Your task to perform on an android device: turn on wifi Image 0: 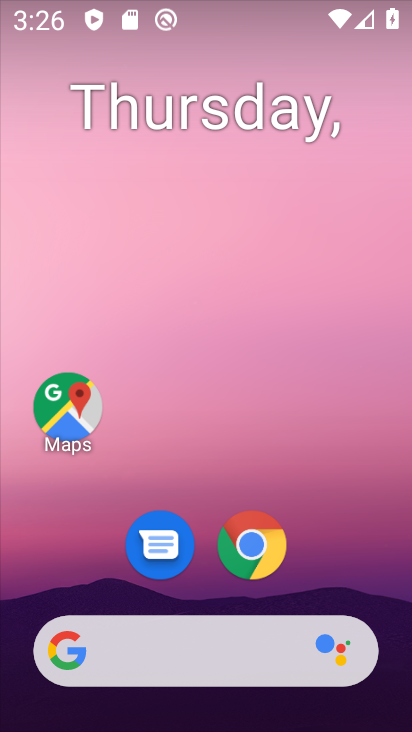
Step 0: drag from (347, 585) to (313, 45)
Your task to perform on an android device: turn on wifi Image 1: 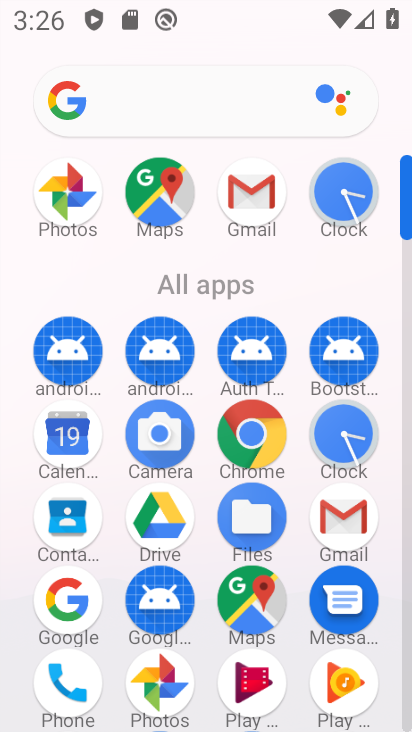
Step 1: drag from (412, 590) to (399, 285)
Your task to perform on an android device: turn on wifi Image 2: 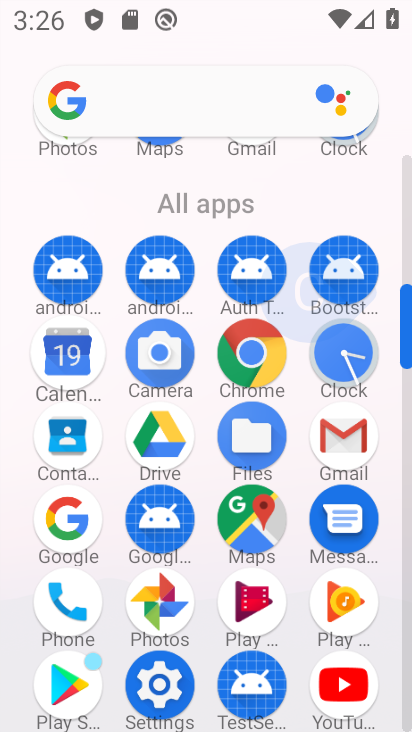
Step 2: click (139, 717)
Your task to perform on an android device: turn on wifi Image 3: 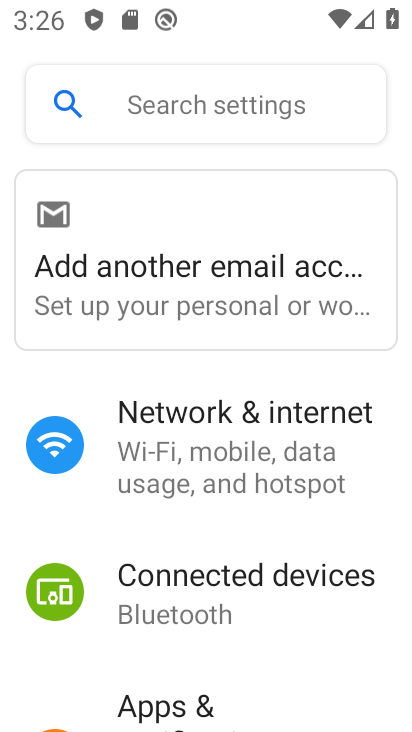
Step 3: click (175, 262)
Your task to perform on an android device: turn on wifi Image 4: 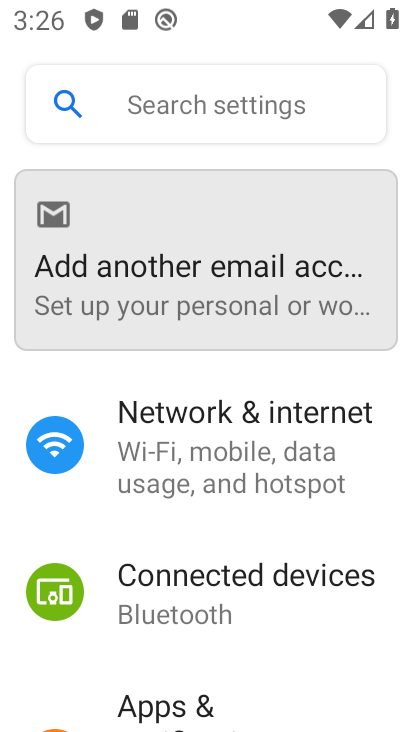
Step 4: click (149, 414)
Your task to perform on an android device: turn on wifi Image 5: 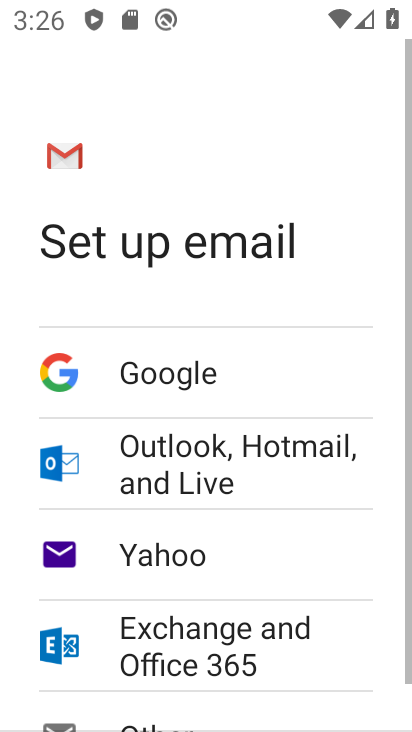
Step 5: press back button
Your task to perform on an android device: turn on wifi Image 6: 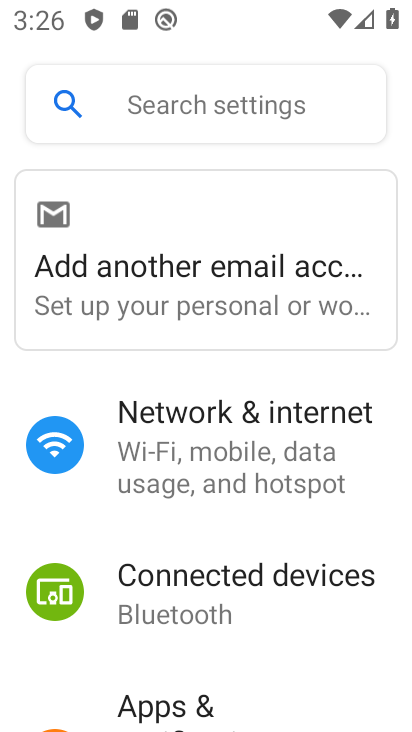
Step 6: click (222, 485)
Your task to perform on an android device: turn on wifi Image 7: 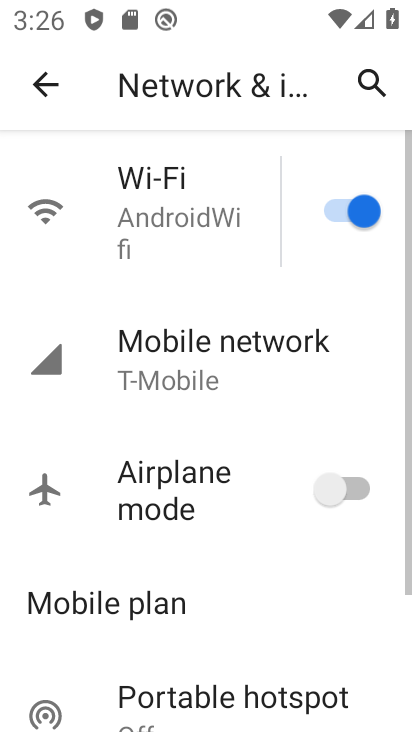
Step 7: click (335, 199)
Your task to perform on an android device: turn on wifi Image 8: 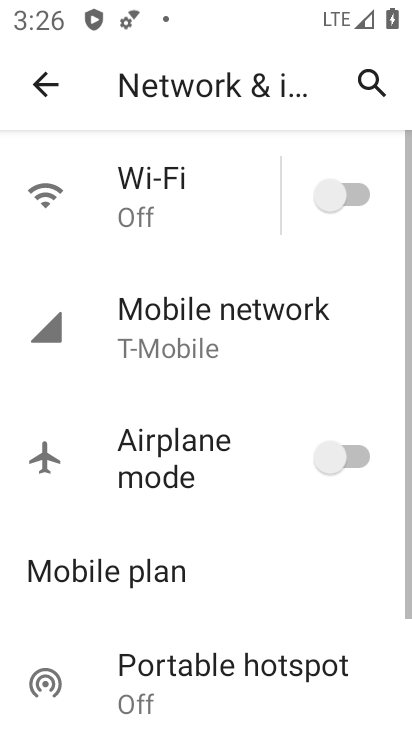
Step 8: task complete